Your task to perform on an android device: Open sound settings Image 0: 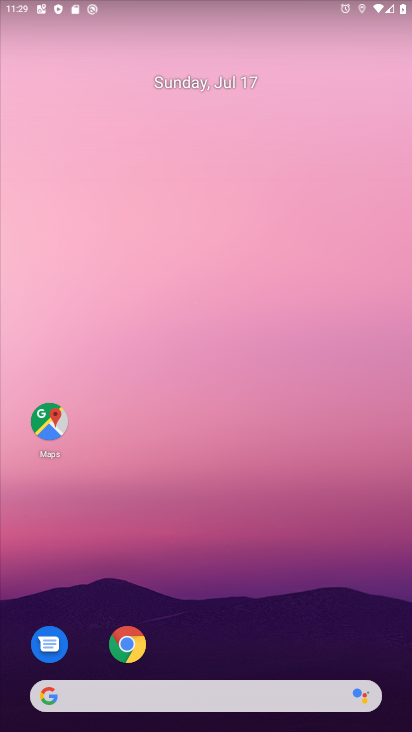
Step 0: drag from (297, 586) to (265, 66)
Your task to perform on an android device: Open sound settings Image 1: 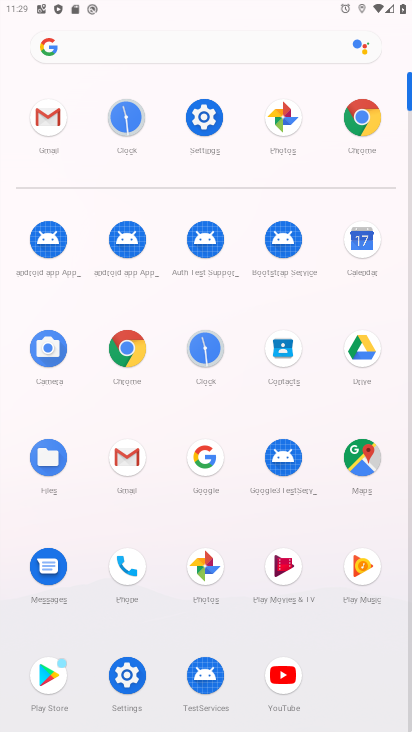
Step 1: click (210, 109)
Your task to perform on an android device: Open sound settings Image 2: 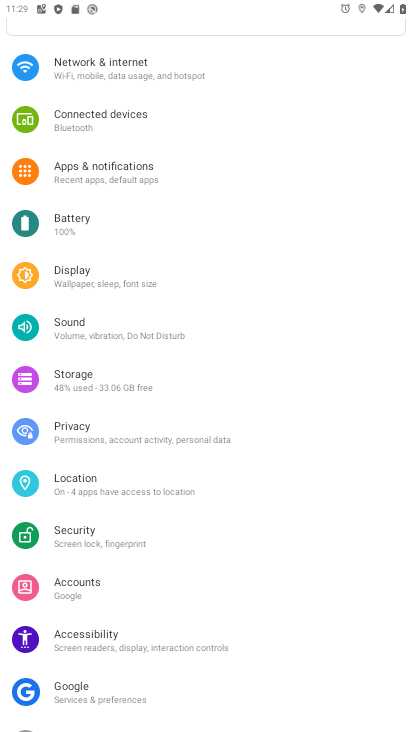
Step 2: click (111, 329)
Your task to perform on an android device: Open sound settings Image 3: 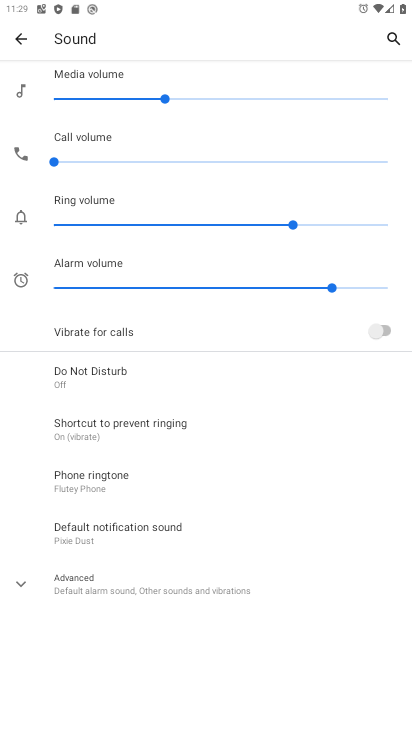
Step 3: task complete